Your task to perform on an android device: turn off notifications in google photos Image 0: 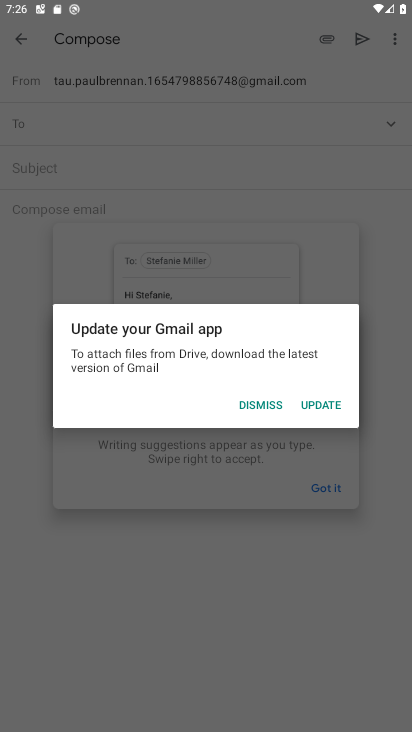
Step 0: press home button
Your task to perform on an android device: turn off notifications in google photos Image 1: 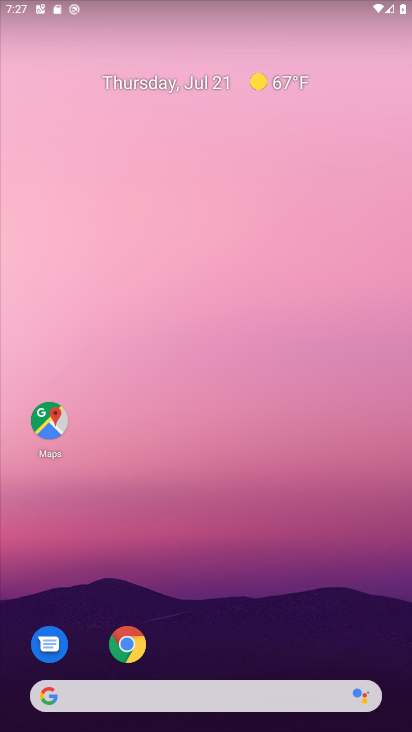
Step 1: drag from (201, 678) to (221, 108)
Your task to perform on an android device: turn off notifications in google photos Image 2: 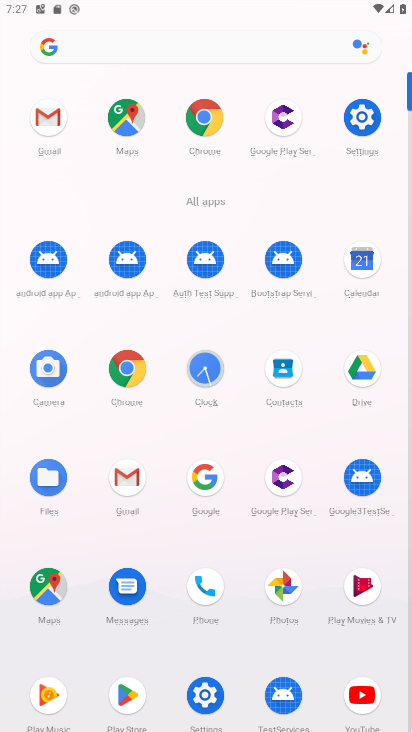
Step 2: click (279, 579)
Your task to perform on an android device: turn off notifications in google photos Image 3: 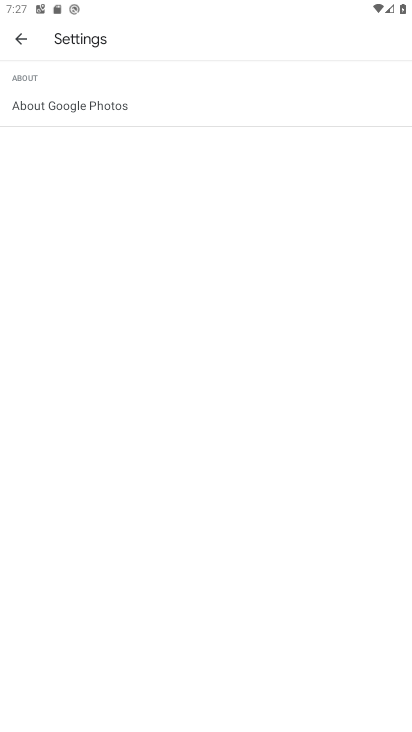
Step 3: click (20, 40)
Your task to perform on an android device: turn off notifications in google photos Image 4: 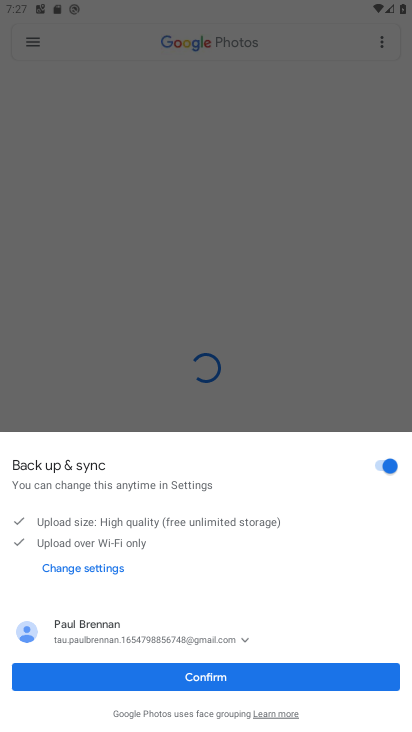
Step 4: click (216, 681)
Your task to perform on an android device: turn off notifications in google photos Image 5: 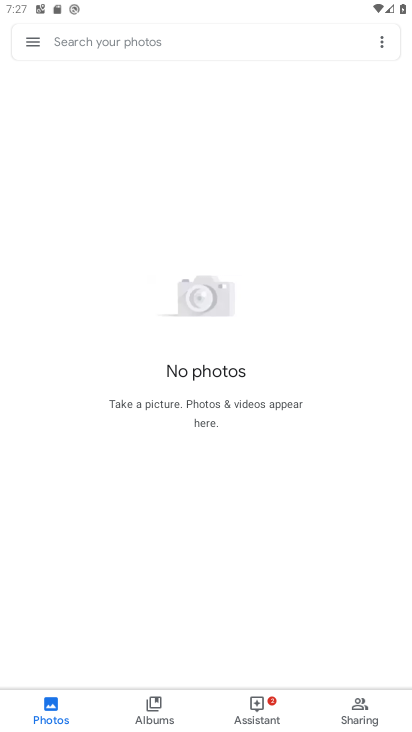
Step 5: click (34, 34)
Your task to perform on an android device: turn off notifications in google photos Image 6: 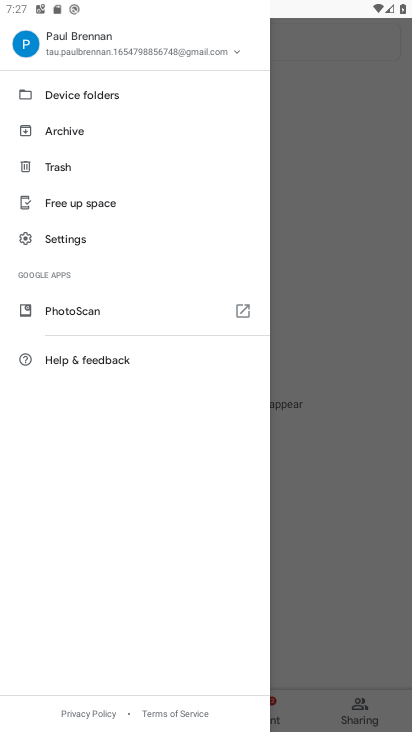
Step 6: click (71, 231)
Your task to perform on an android device: turn off notifications in google photos Image 7: 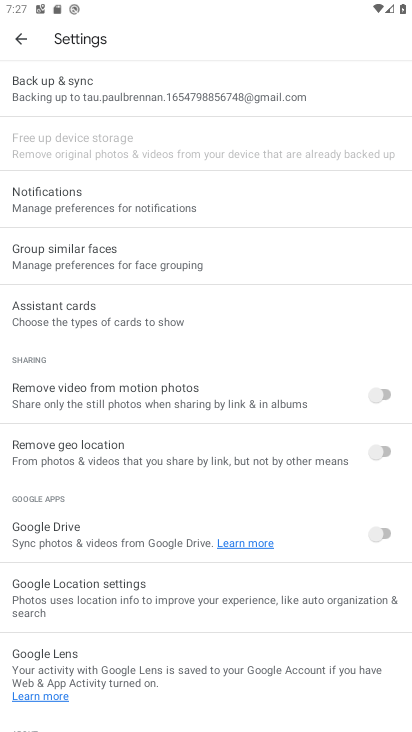
Step 7: click (98, 202)
Your task to perform on an android device: turn off notifications in google photos Image 8: 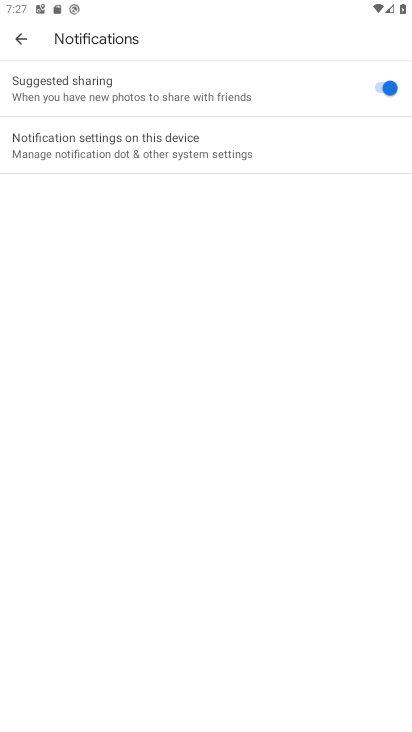
Step 8: click (134, 149)
Your task to perform on an android device: turn off notifications in google photos Image 9: 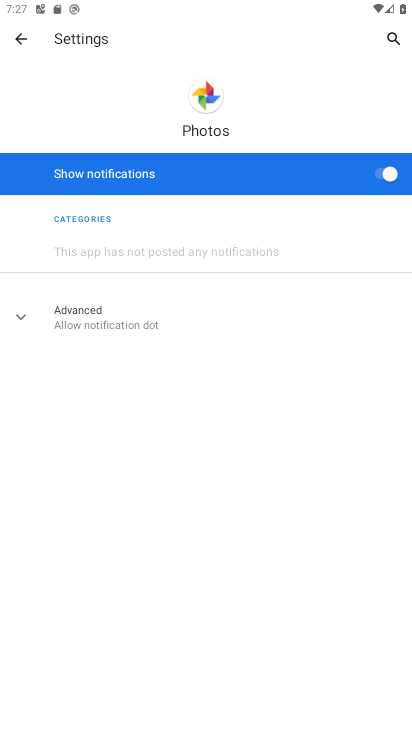
Step 9: click (368, 172)
Your task to perform on an android device: turn off notifications in google photos Image 10: 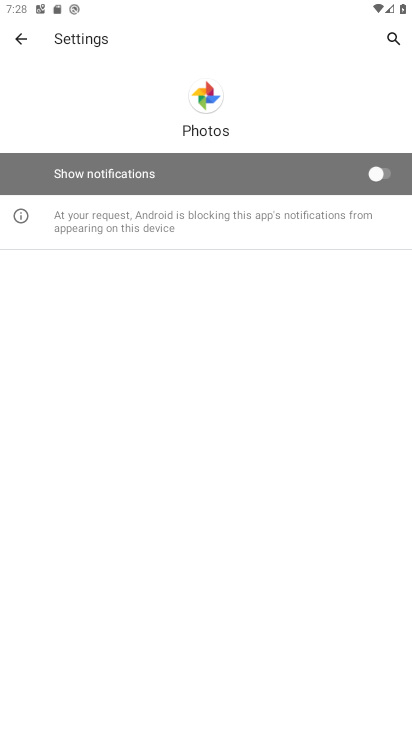
Step 10: task complete